Your task to perform on an android device: open a bookmark in the chrome app Image 0: 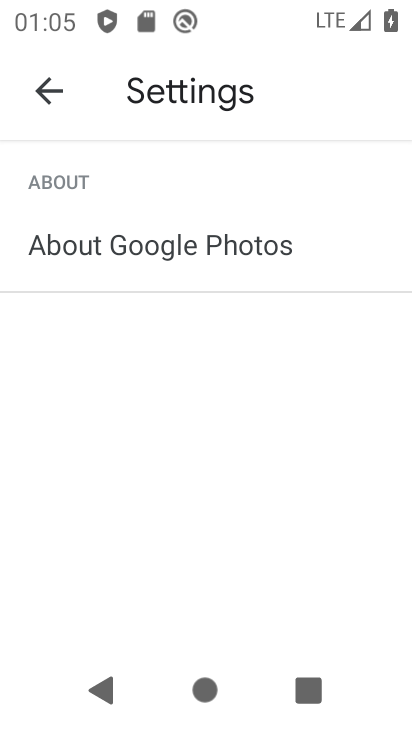
Step 0: press home button
Your task to perform on an android device: open a bookmark in the chrome app Image 1: 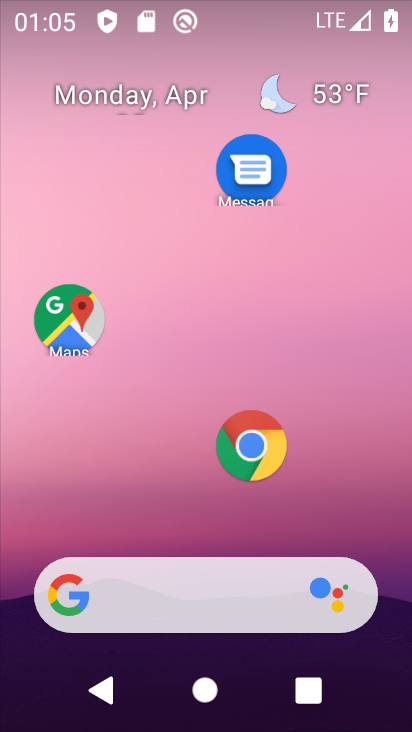
Step 1: click (266, 472)
Your task to perform on an android device: open a bookmark in the chrome app Image 2: 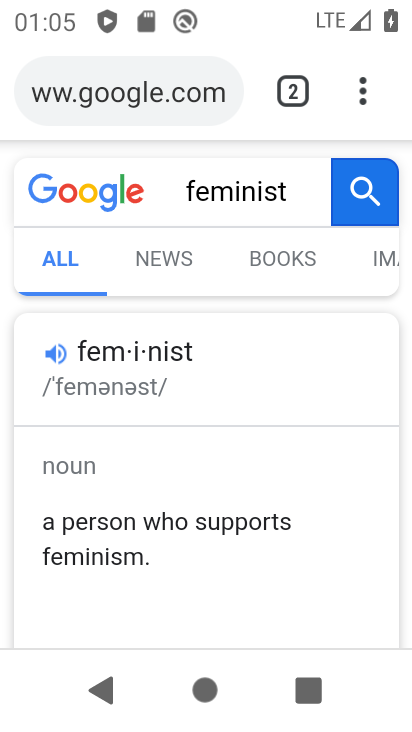
Step 2: click (365, 84)
Your task to perform on an android device: open a bookmark in the chrome app Image 3: 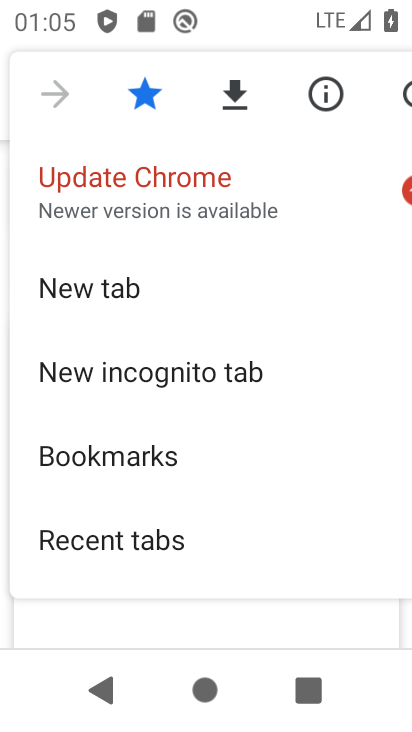
Step 3: click (125, 467)
Your task to perform on an android device: open a bookmark in the chrome app Image 4: 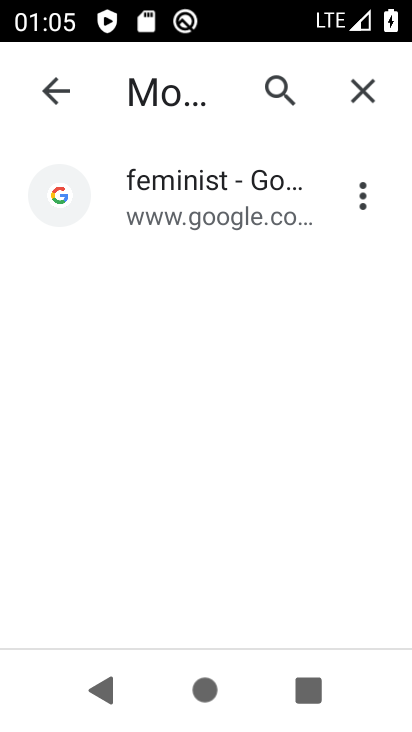
Step 4: click (219, 195)
Your task to perform on an android device: open a bookmark in the chrome app Image 5: 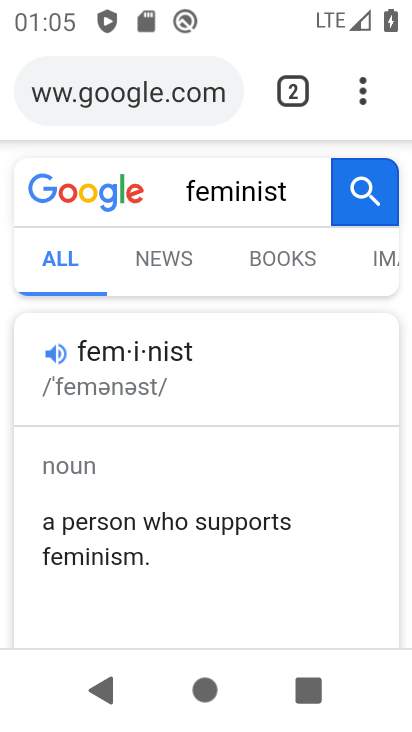
Step 5: task complete